Your task to perform on an android device: uninstall "Flipkart Online Shopping App" Image 0: 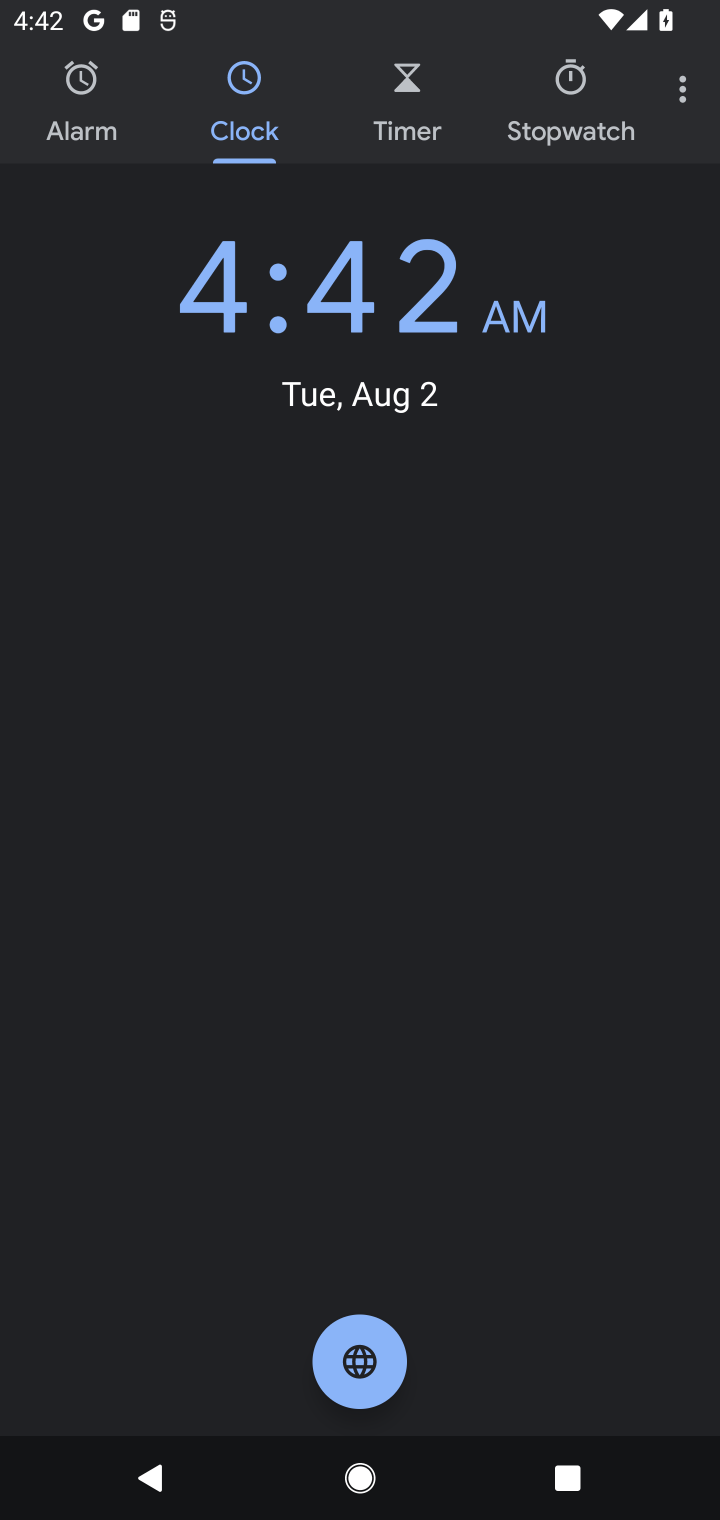
Step 0: press home button
Your task to perform on an android device: uninstall "Flipkart Online Shopping App" Image 1: 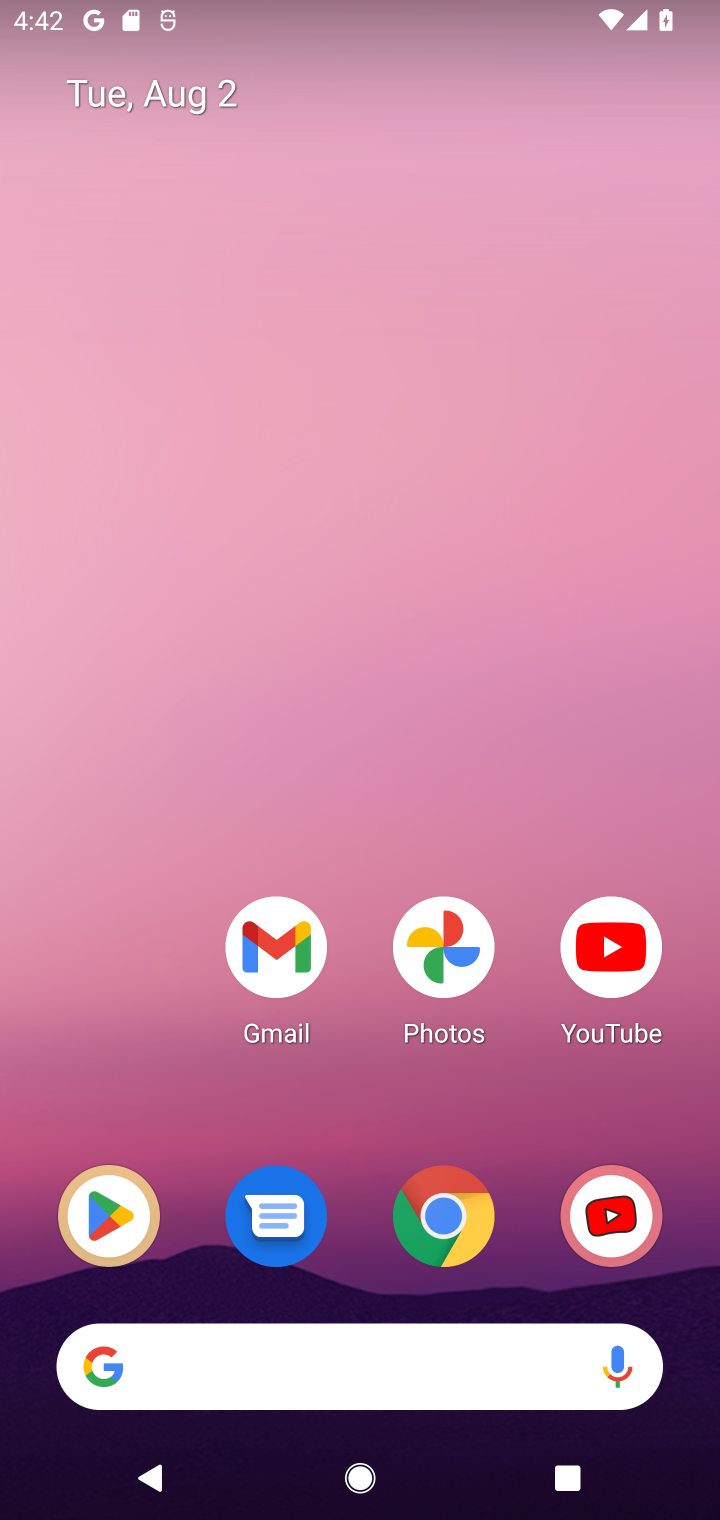
Step 1: click (135, 1225)
Your task to perform on an android device: uninstall "Flipkart Online Shopping App" Image 2: 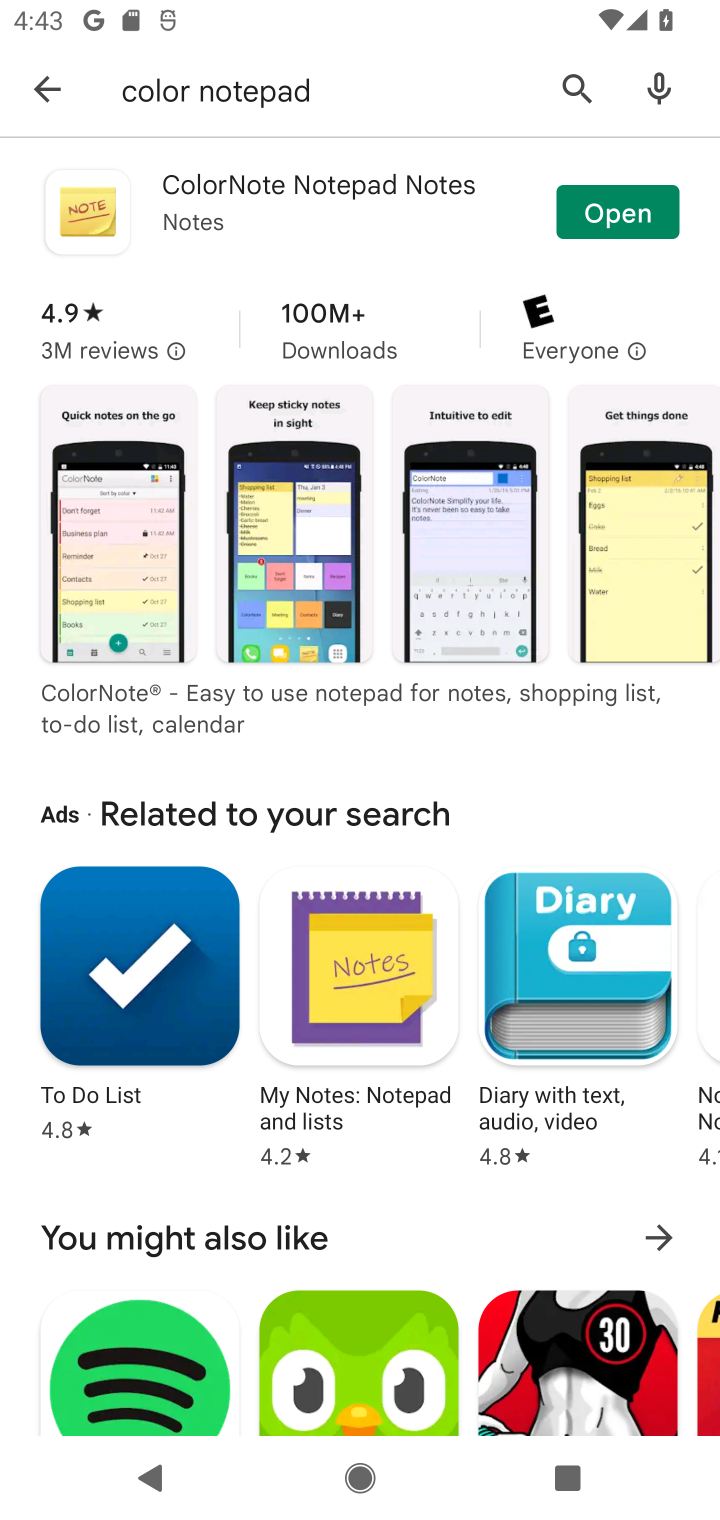
Step 2: click (544, 80)
Your task to perform on an android device: uninstall "Flipkart Online Shopping App" Image 3: 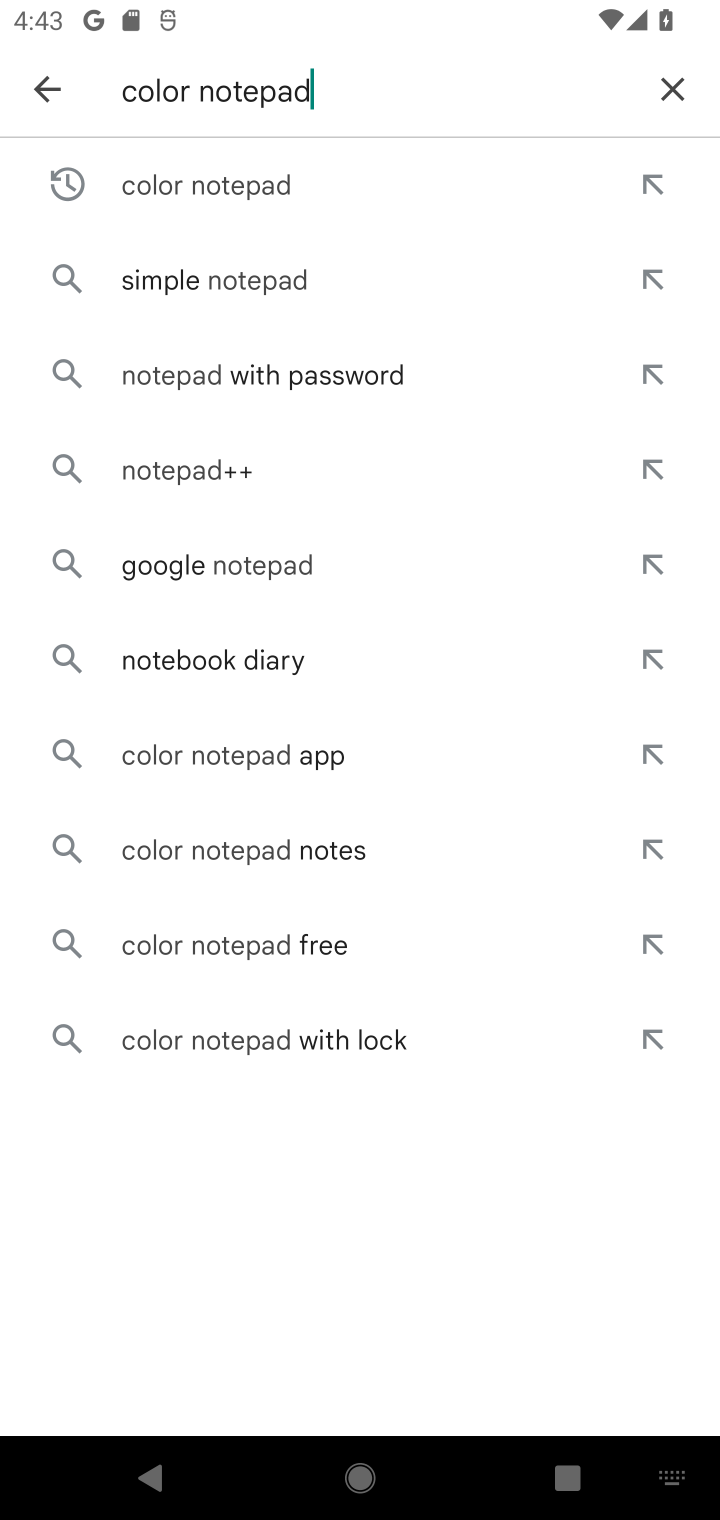
Step 3: click (678, 105)
Your task to perform on an android device: uninstall "Flipkart Online Shopping App" Image 4: 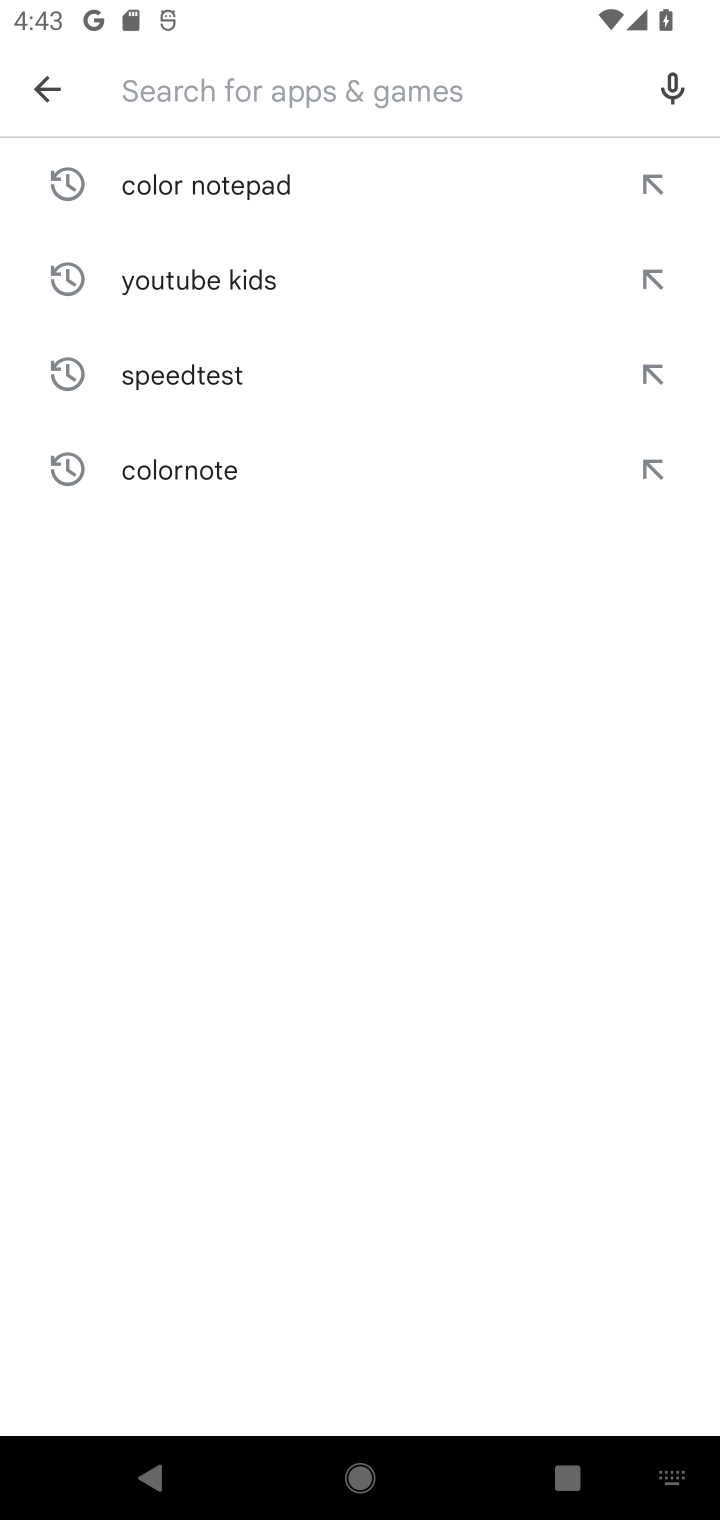
Step 4: type "flipkart"
Your task to perform on an android device: uninstall "Flipkart Online Shopping App" Image 5: 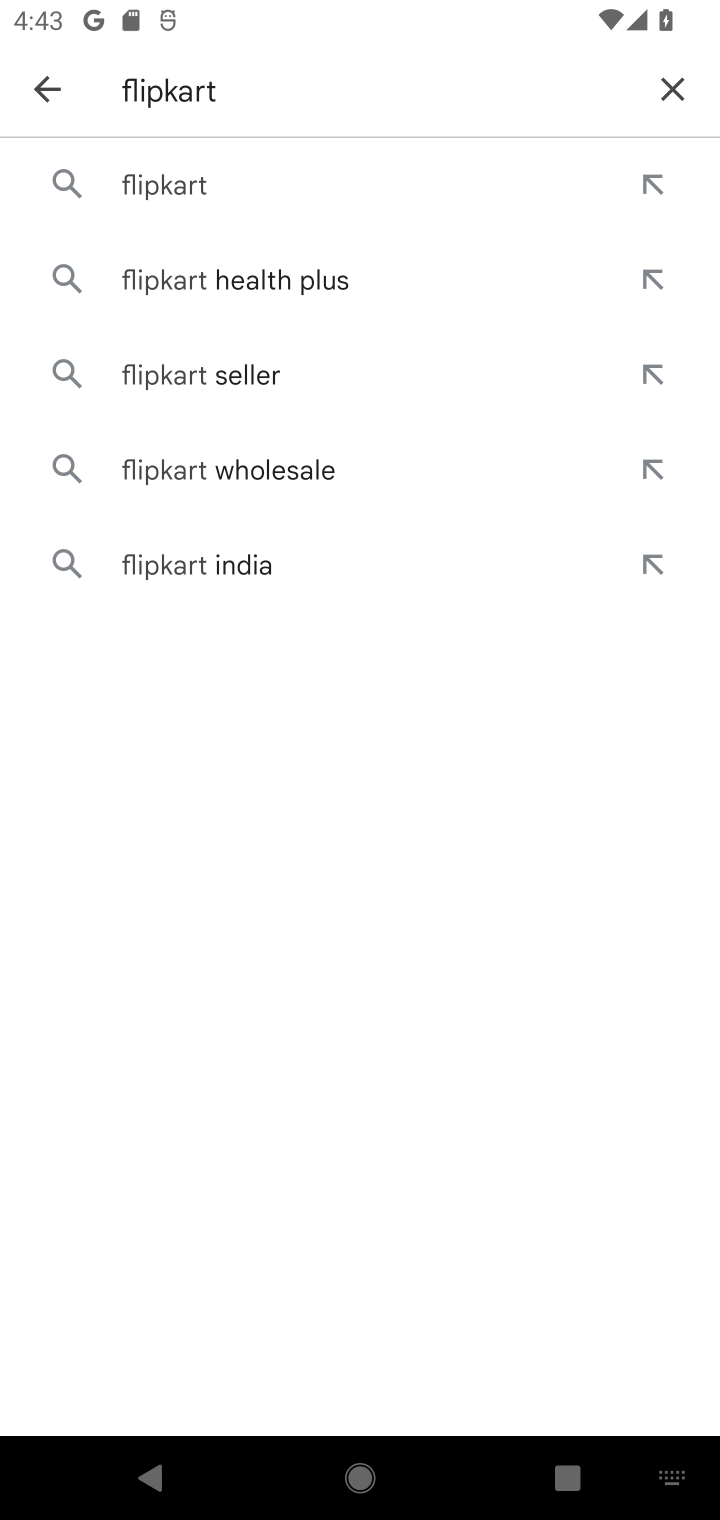
Step 5: click (246, 199)
Your task to perform on an android device: uninstall "Flipkart Online Shopping App" Image 6: 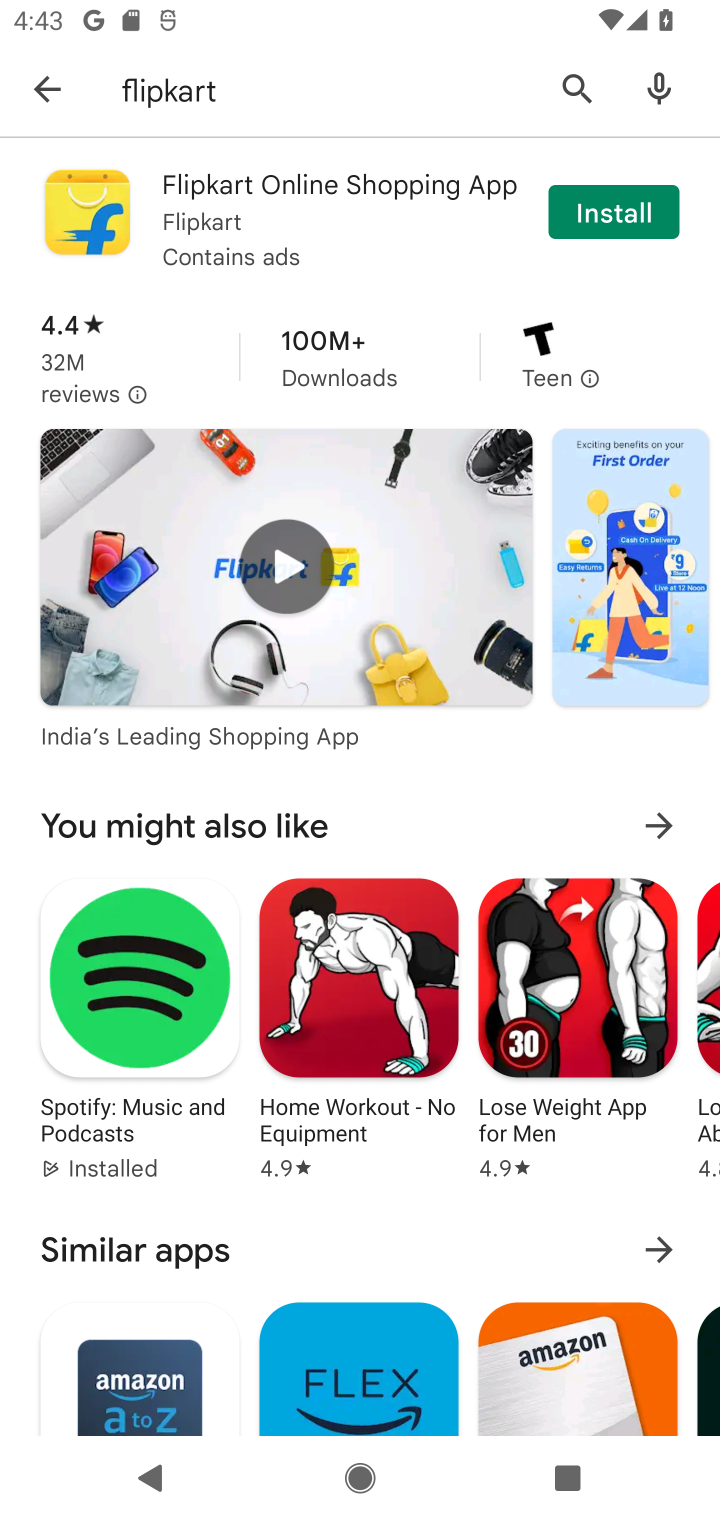
Step 6: click (647, 219)
Your task to perform on an android device: uninstall "Flipkart Online Shopping App" Image 7: 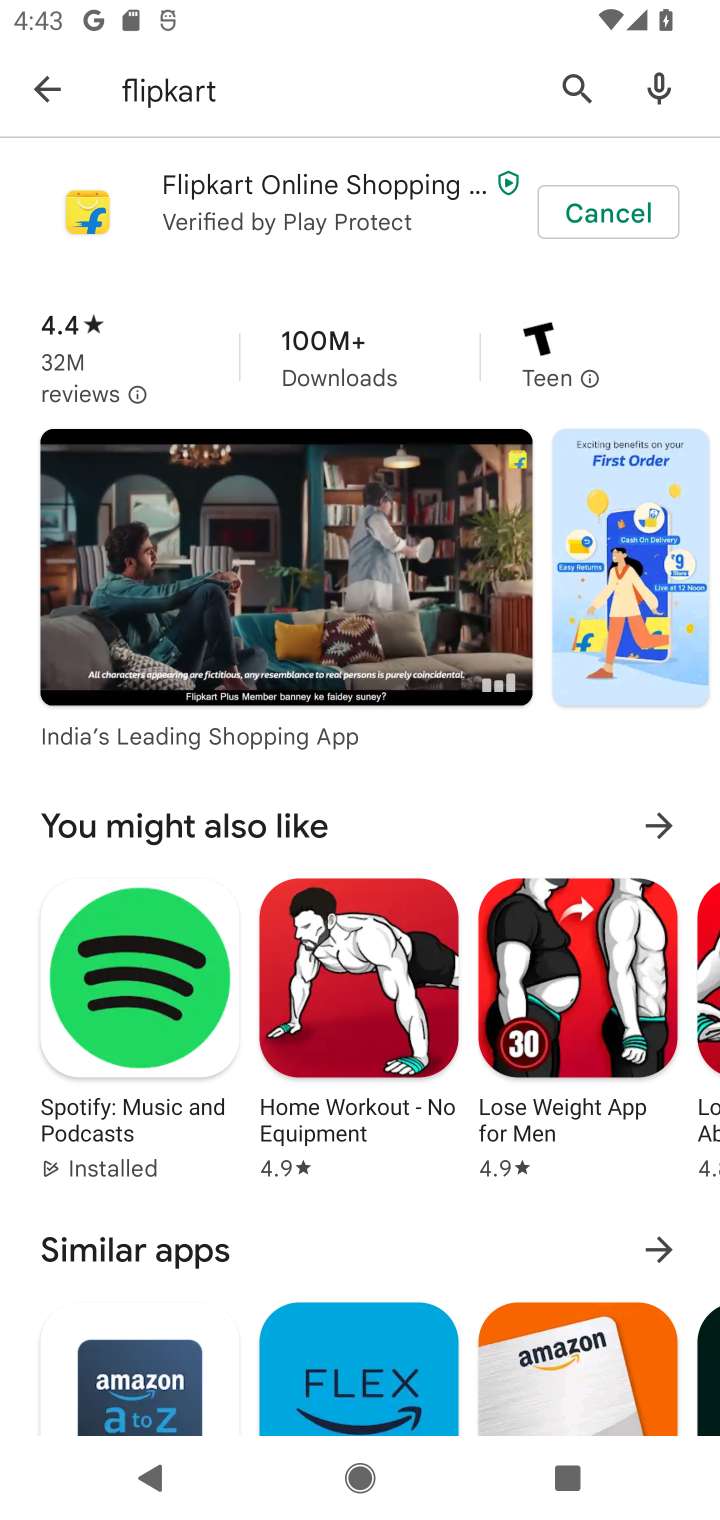
Step 7: task complete